Your task to perform on an android device: Open Reddit.com Image 0: 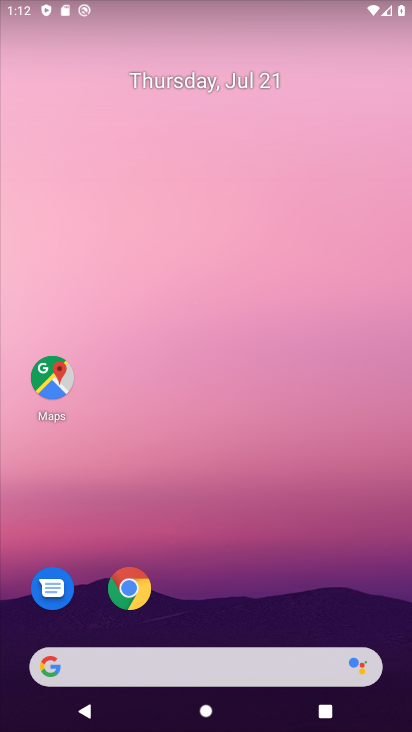
Step 0: drag from (208, 639) to (240, 44)
Your task to perform on an android device: Open Reddit.com Image 1: 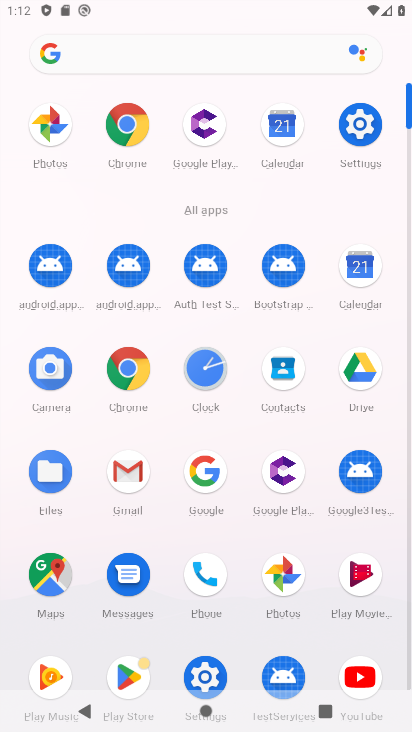
Step 1: click (363, 137)
Your task to perform on an android device: Open Reddit.com Image 2: 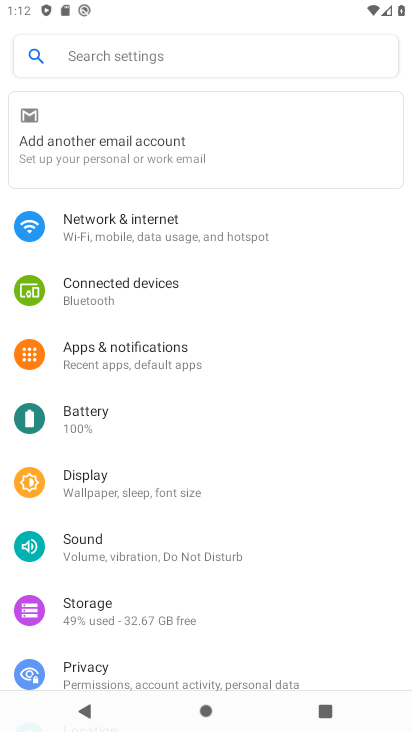
Step 2: click (93, 445)
Your task to perform on an android device: Open Reddit.com Image 3: 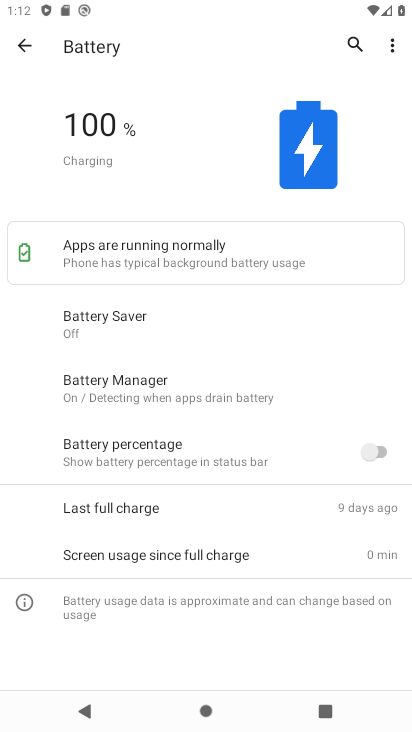
Step 3: task complete